Your task to perform on an android device: find photos in the google photos app Image 0: 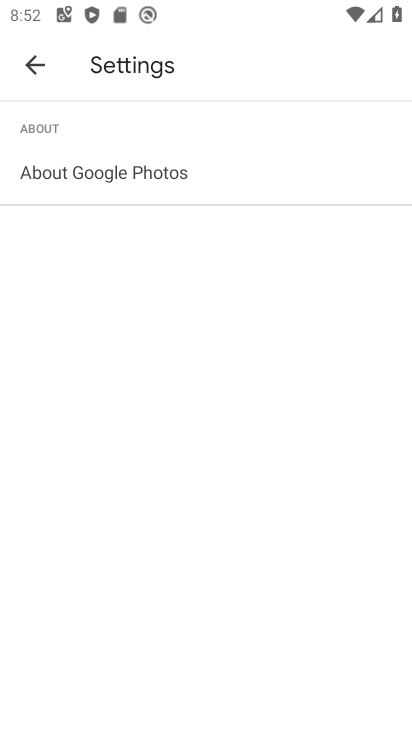
Step 0: press home button
Your task to perform on an android device: find photos in the google photos app Image 1: 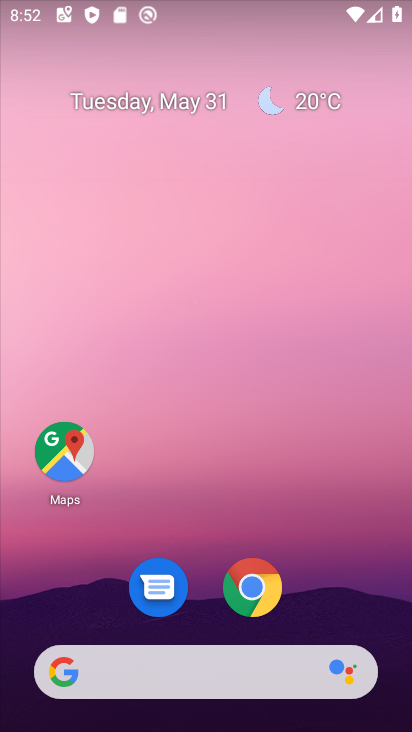
Step 1: drag from (206, 630) to (217, 198)
Your task to perform on an android device: find photos in the google photos app Image 2: 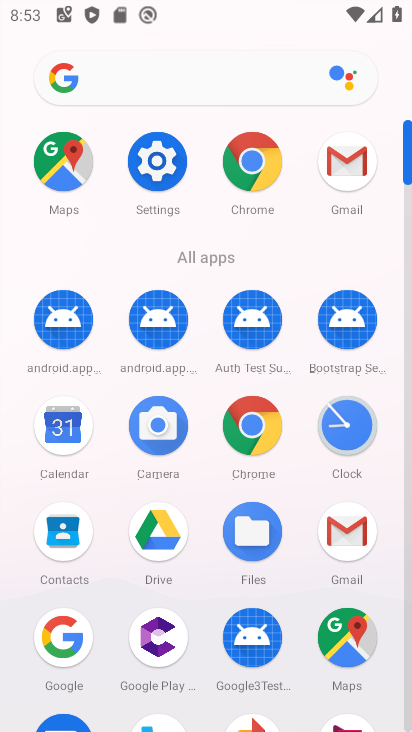
Step 2: click (253, 722)
Your task to perform on an android device: find photos in the google photos app Image 3: 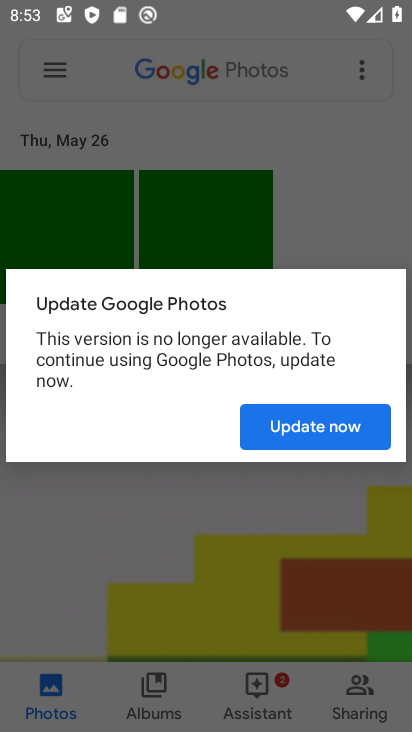
Step 3: task complete